Your task to perform on an android device: Open settings Image 0: 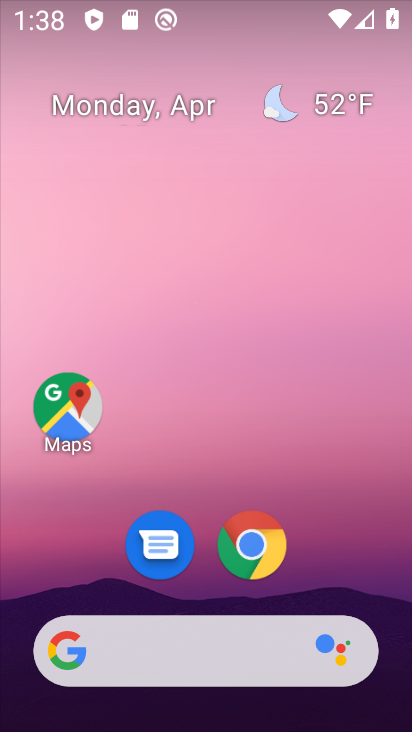
Step 0: drag from (211, 713) to (206, 138)
Your task to perform on an android device: Open settings Image 1: 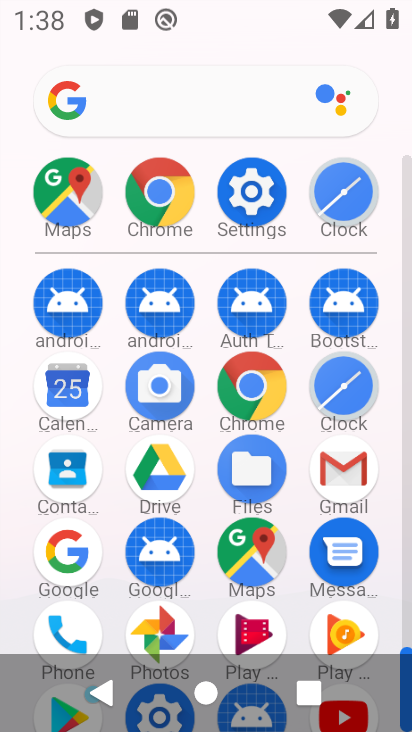
Step 1: click (257, 187)
Your task to perform on an android device: Open settings Image 2: 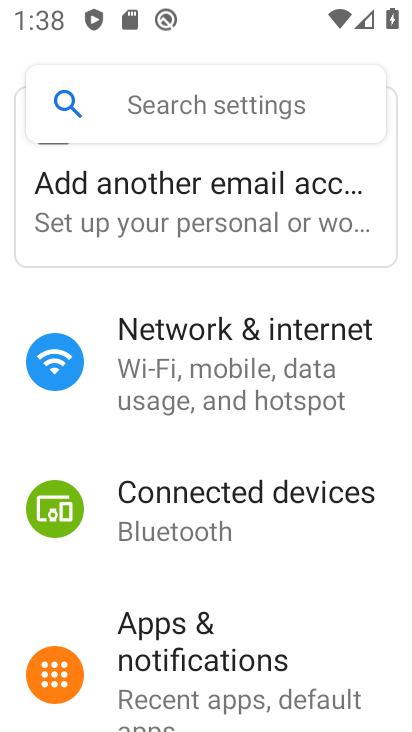
Step 2: task complete